Your task to perform on an android device: turn vacation reply on in the gmail app Image 0: 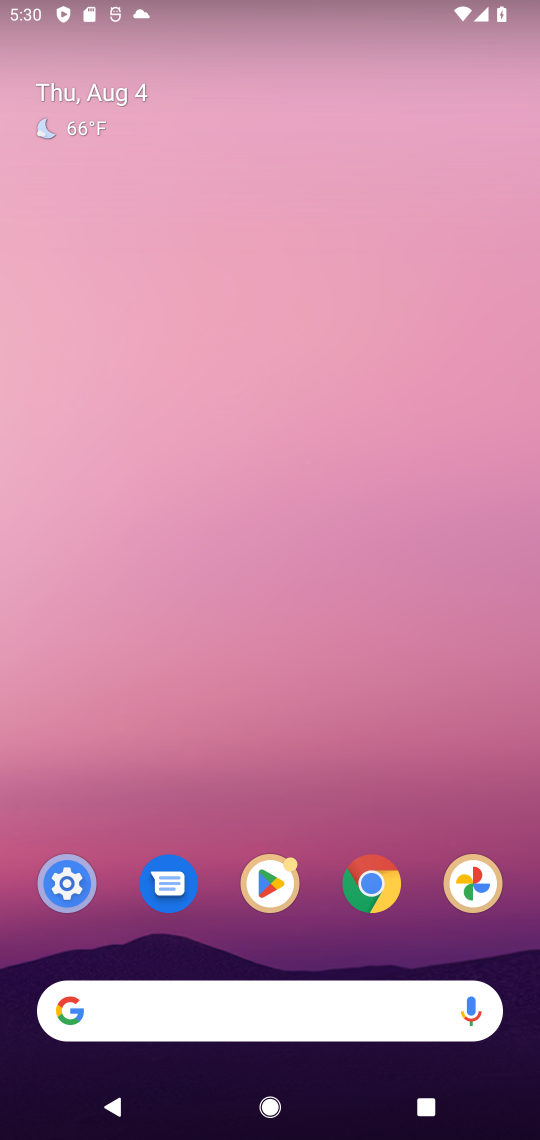
Step 0: drag from (323, 514) to (348, 0)
Your task to perform on an android device: turn vacation reply on in the gmail app Image 1: 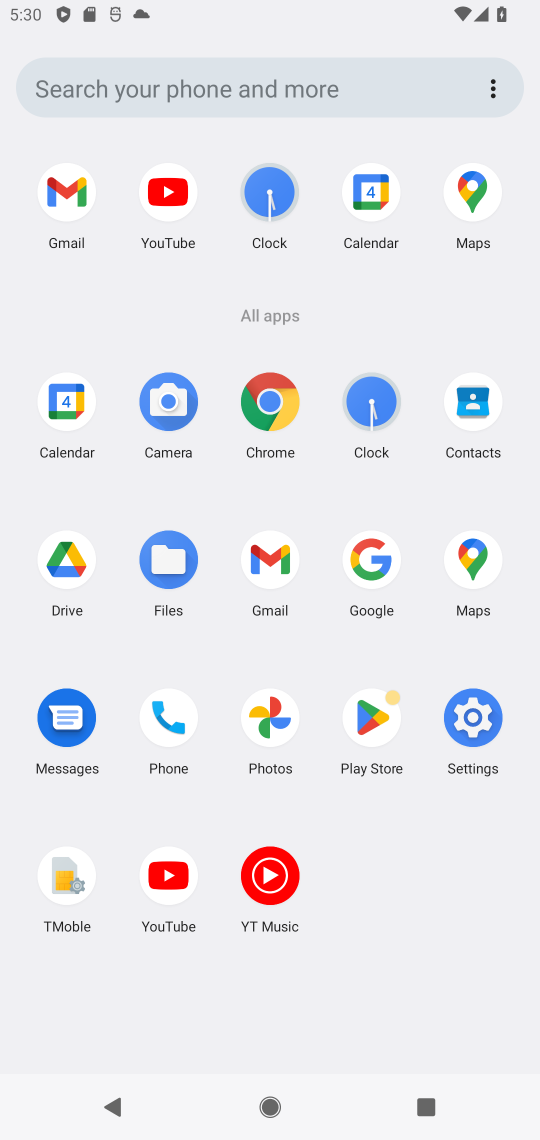
Step 1: click (57, 209)
Your task to perform on an android device: turn vacation reply on in the gmail app Image 2: 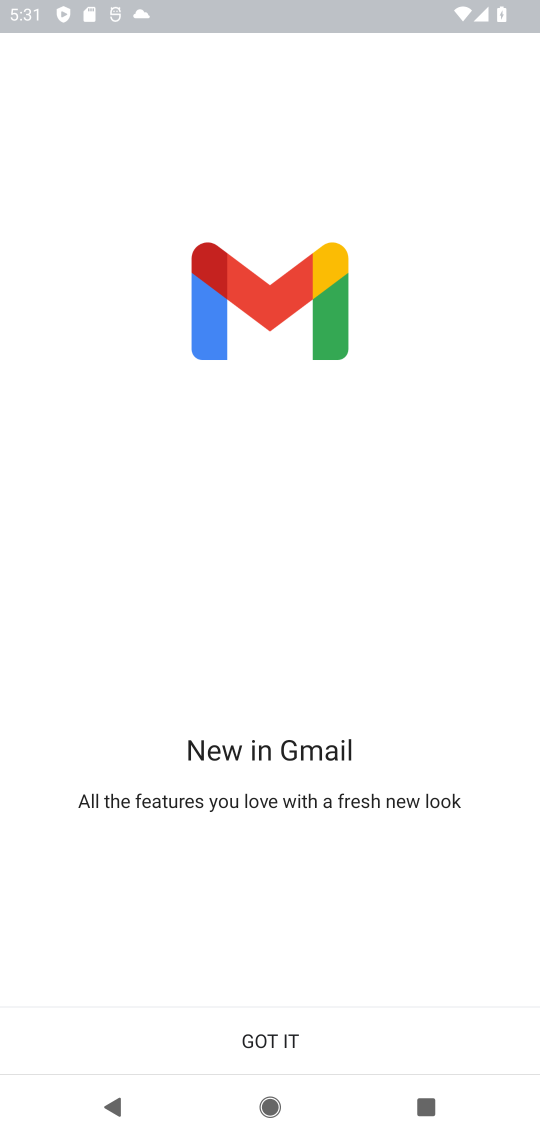
Step 2: click (188, 1034)
Your task to perform on an android device: turn vacation reply on in the gmail app Image 3: 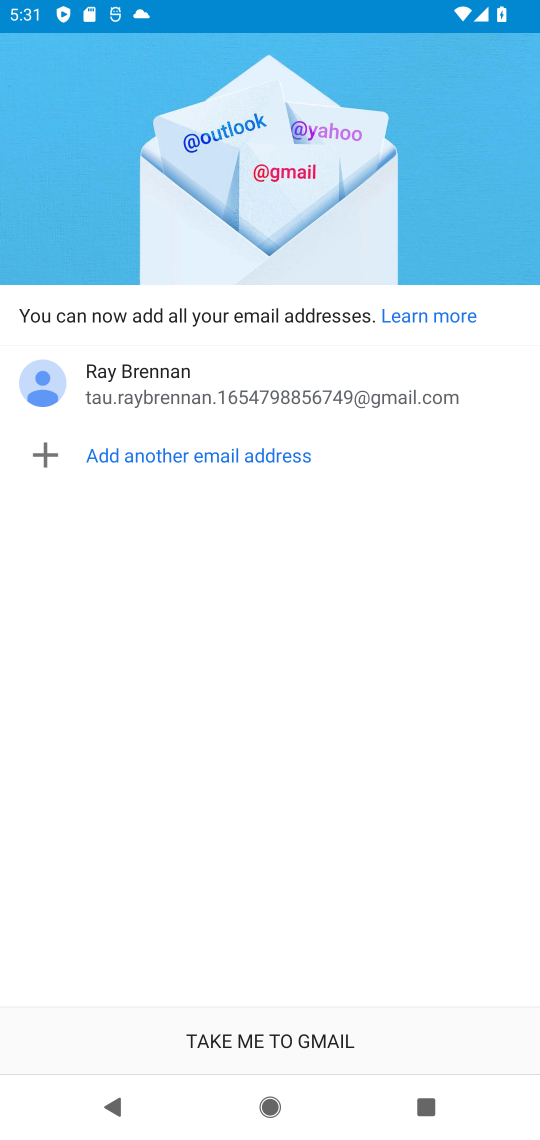
Step 3: click (188, 1034)
Your task to perform on an android device: turn vacation reply on in the gmail app Image 4: 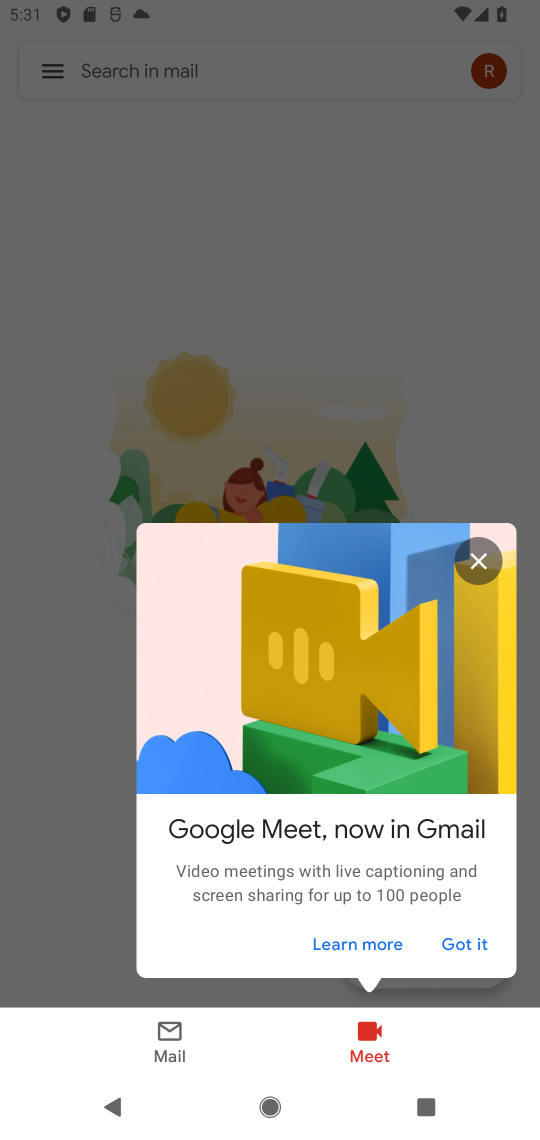
Step 4: click (473, 569)
Your task to perform on an android device: turn vacation reply on in the gmail app Image 5: 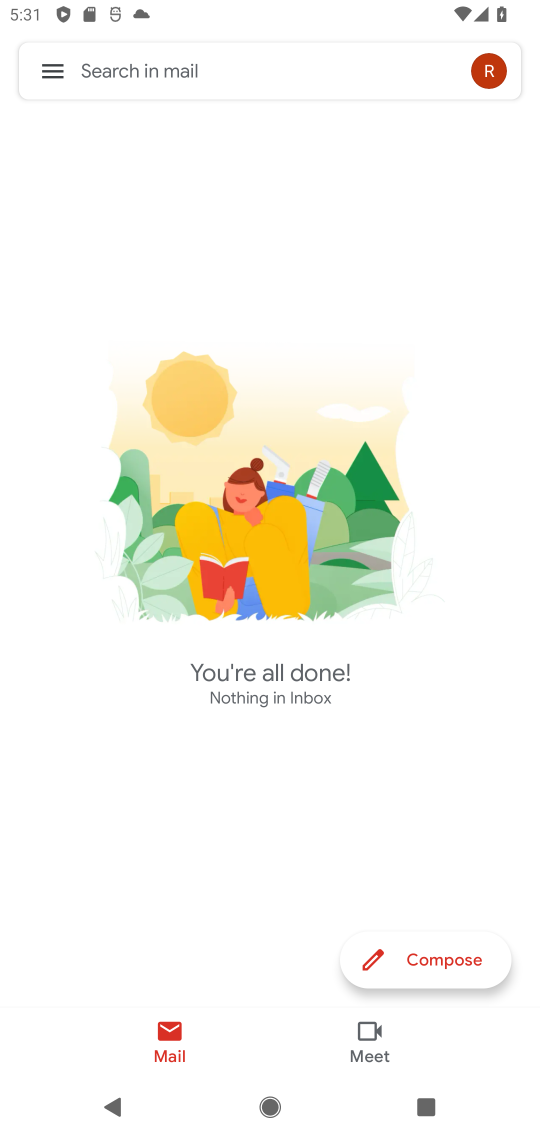
Step 5: click (47, 77)
Your task to perform on an android device: turn vacation reply on in the gmail app Image 6: 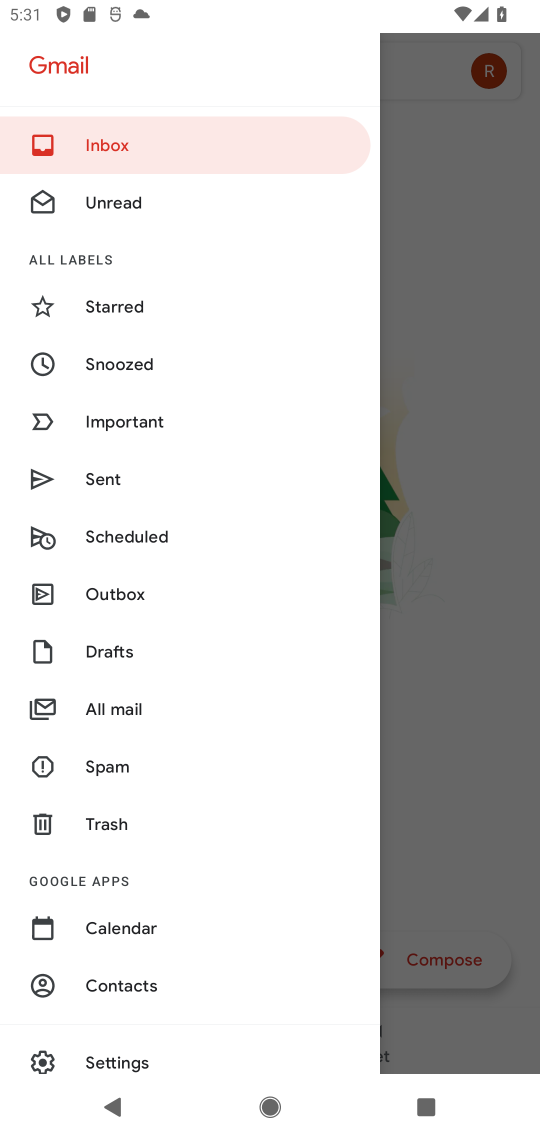
Step 6: click (152, 1055)
Your task to perform on an android device: turn vacation reply on in the gmail app Image 7: 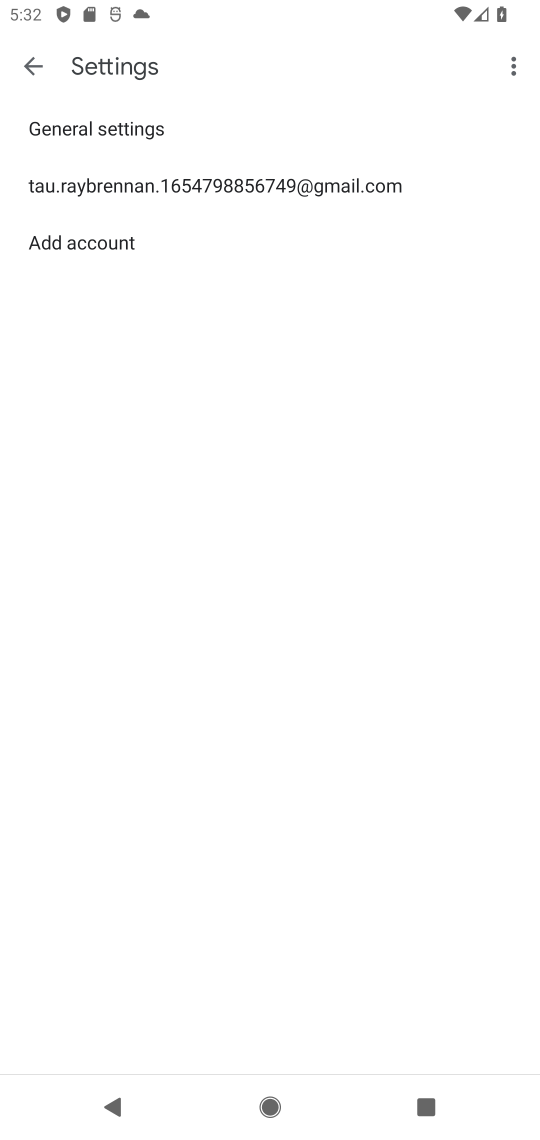
Step 7: click (384, 160)
Your task to perform on an android device: turn vacation reply on in the gmail app Image 8: 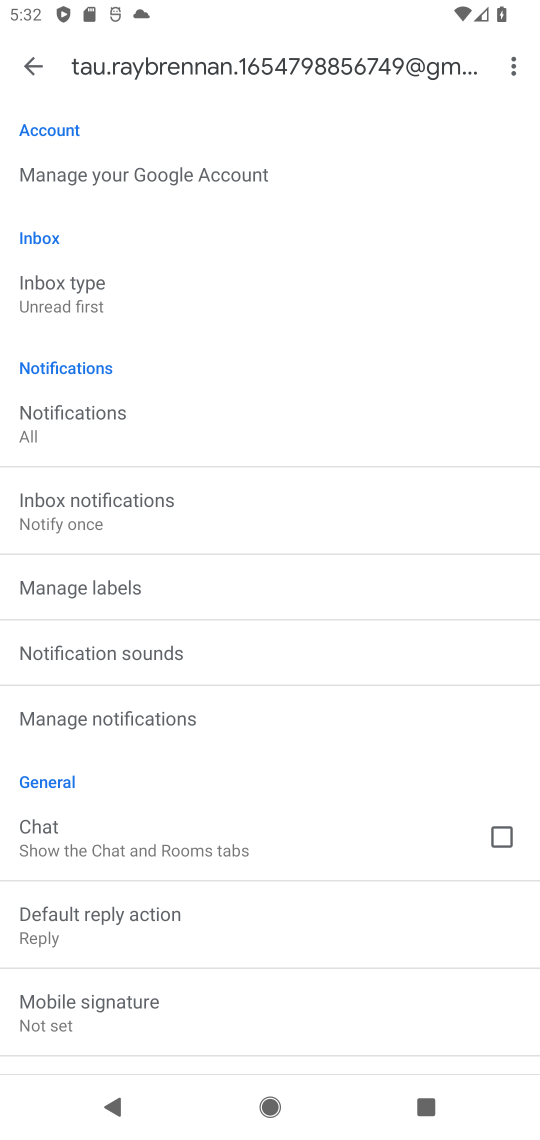
Step 8: drag from (342, 967) to (417, 66)
Your task to perform on an android device: turn vacation reply on in the gmail app Image 9: 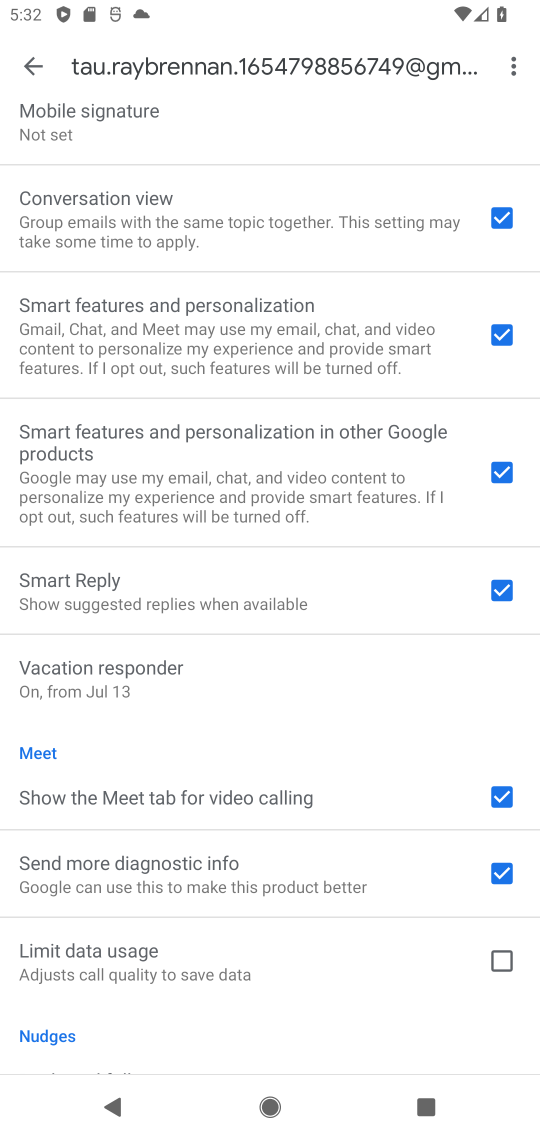
Step 9: drag from (292, 1004) to (527, 86)
Your task to perform on an android device: turn vacation reply on in the gmail app Image 10: 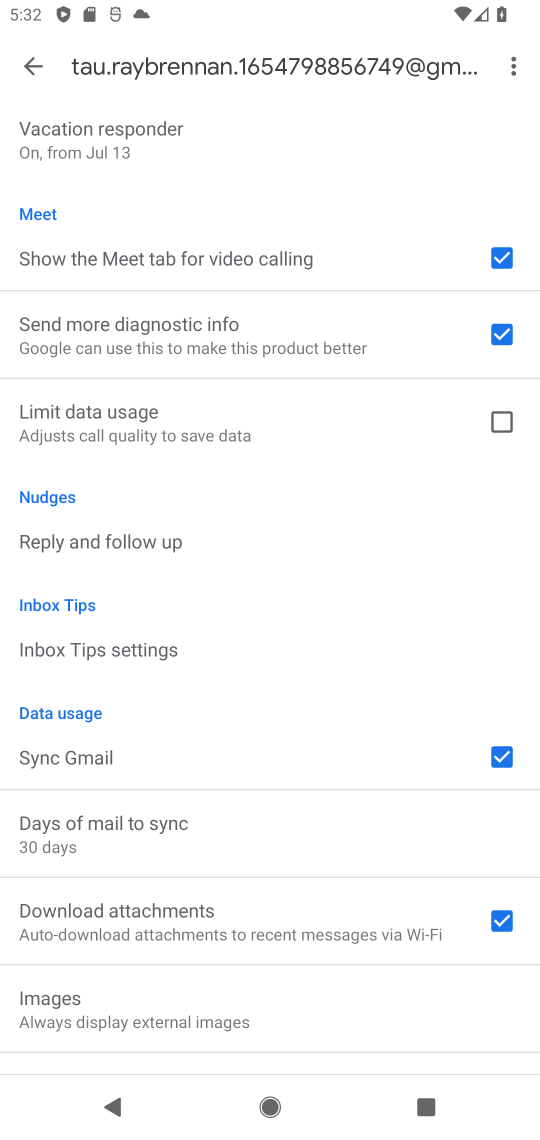
Step 10: click (213, 155)
Your task to perform on an android device: turn vacation reply on in the gmail app Image 11: 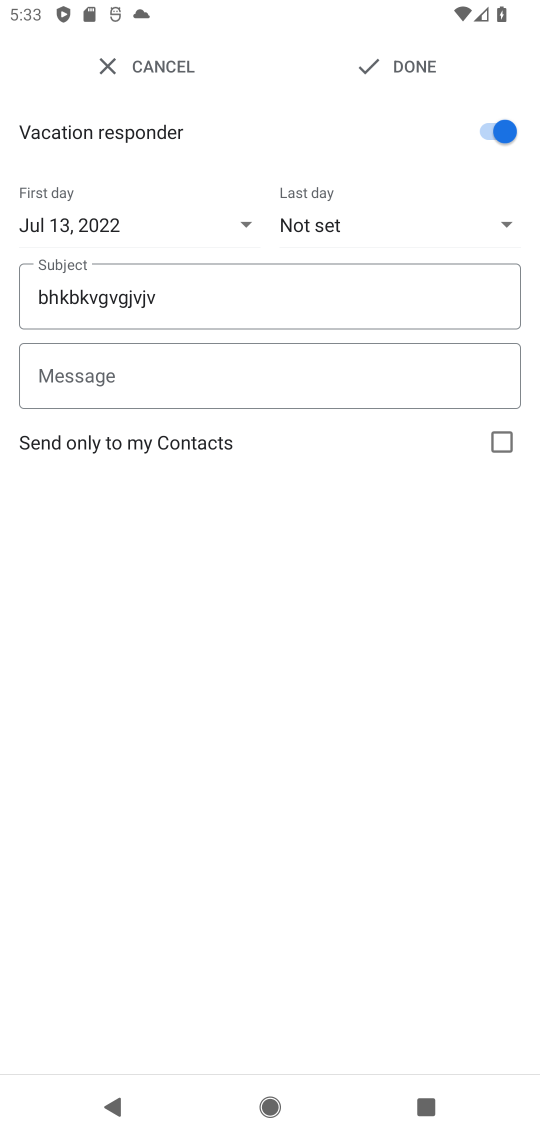
Step 11: click (411, 54)
Your task to perform on an android device: turn vacation reply on in the gmail app Image 12: 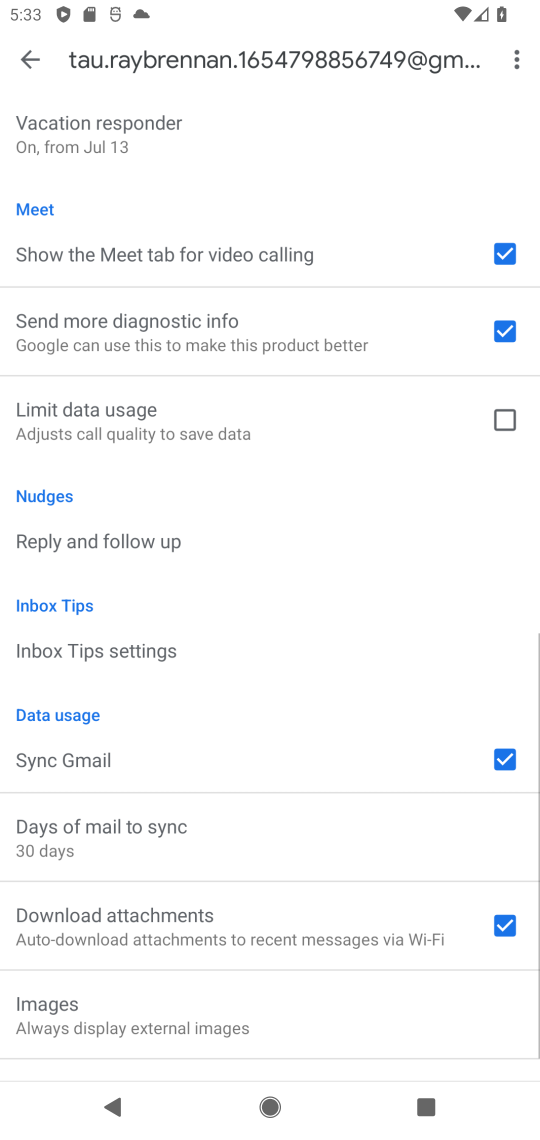
Step 12: task complete